Your task to perform on an android device: Open the phone app and click the voicemail tab. Image 0: 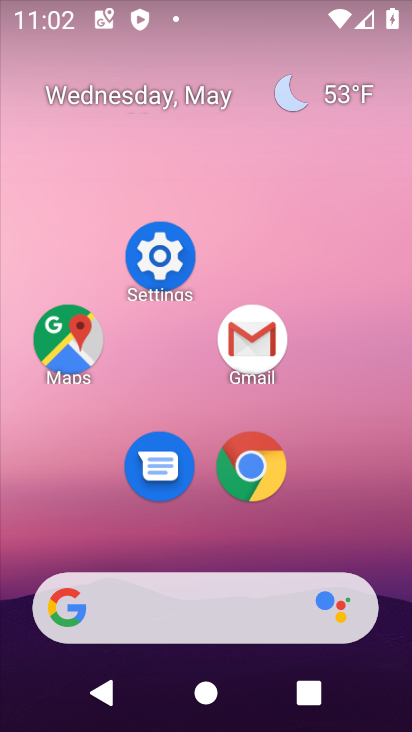
Step 0: drag from (197, 540) to (250, 125)
Your task to perform on an android device: Open the phone app and click the voicemail tab. Image 1: 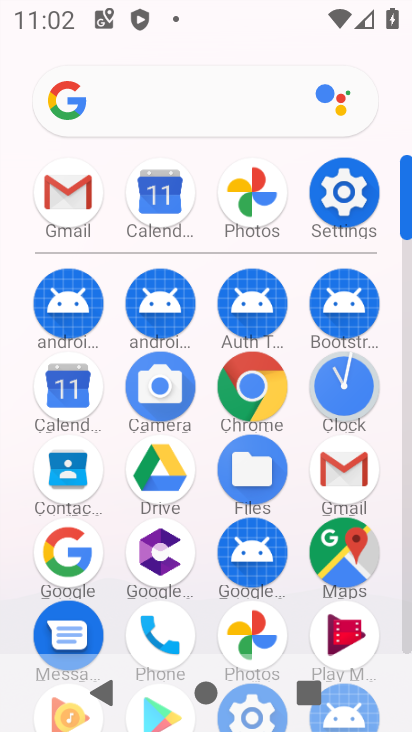
Step 1: click (156, 617)
Your task to perform on an android device: Open the phone app and click the voicemail tab. Image 2: 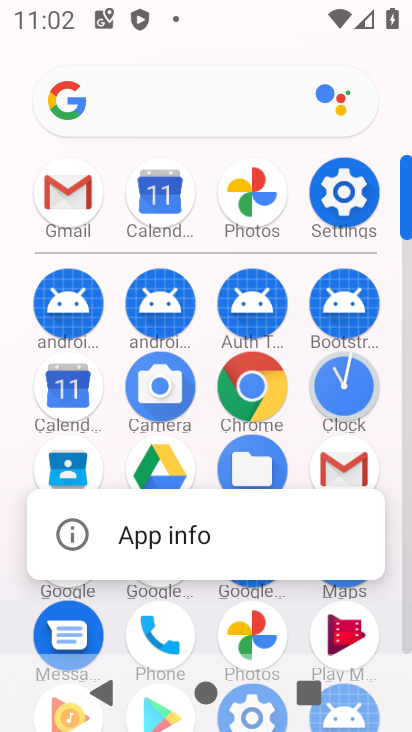
Step 2: drag from (87, 546) to (150, 536)
Your task to perform on an android device: Open the phone app and click the voicemail tab. Image 3: 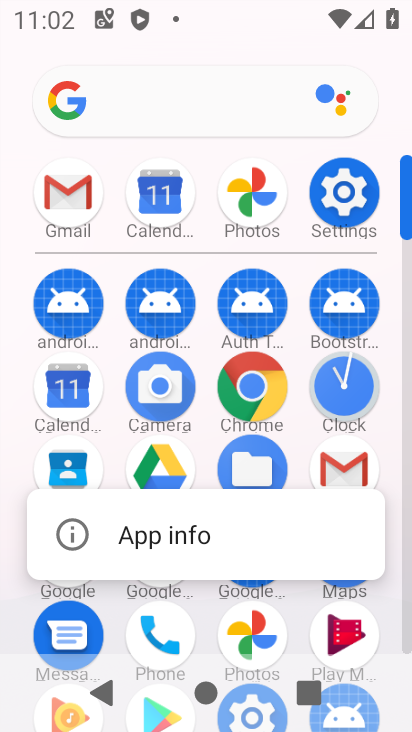
Step 3: click (162, 536)
Your task to perform on an android device: Open the phone app and click the voicemail tab. Image 4: 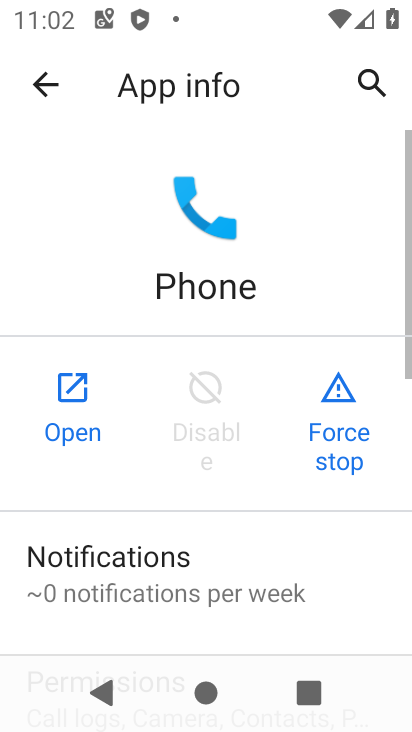
Step 4: click (45, 420)
Your task to perform on an android device: Open the phone app and click the voicemail tab. Image 5: 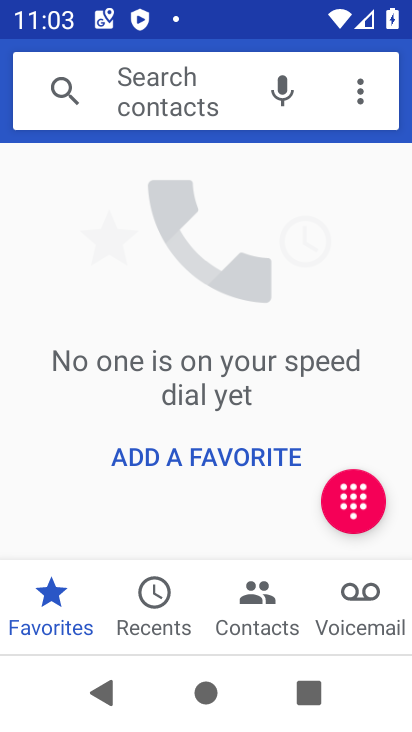
Step 5: click (367, 605)
Your task to perform on an android device: Open the phone app and click the voicemail tab. Image 6: 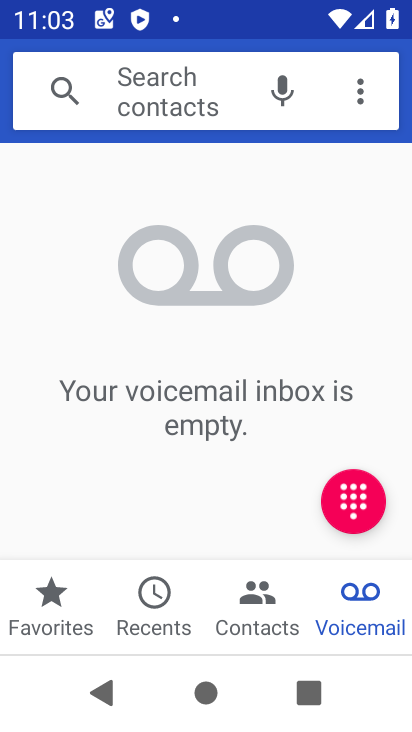
Step 6: task complete